Your task to perform on an android device: Go to calendar. Show me events next week Image 0: 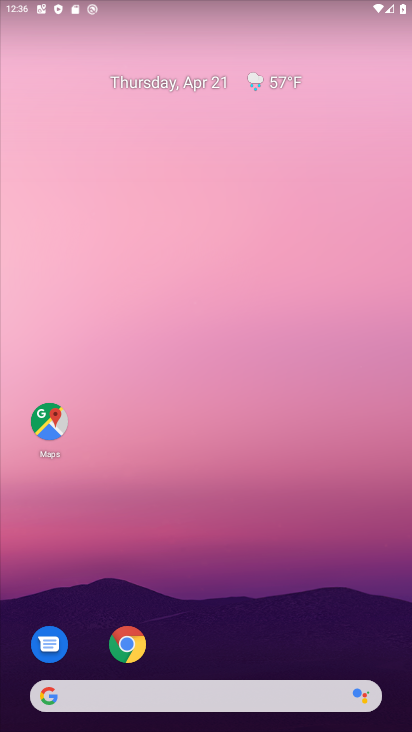
Step 0: drag from (197, 665) to (255, 3)
Your task to perform on an android device: Go to calendar. Show me events next week Image 1: 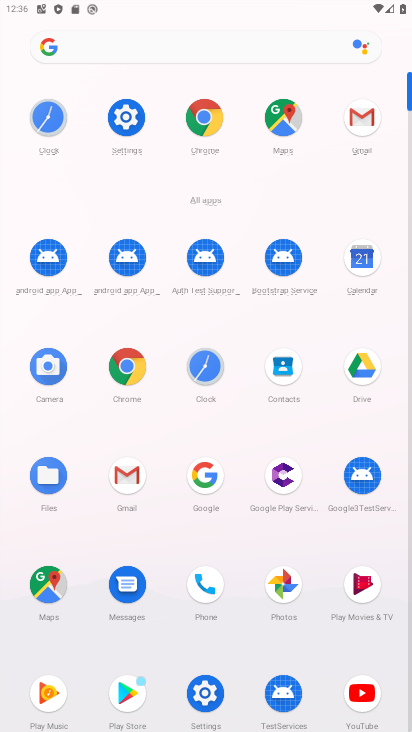
Step 1: click (358, 258)
Your task to perform on an android device: Go to calendar. Show me events next week Image 2: 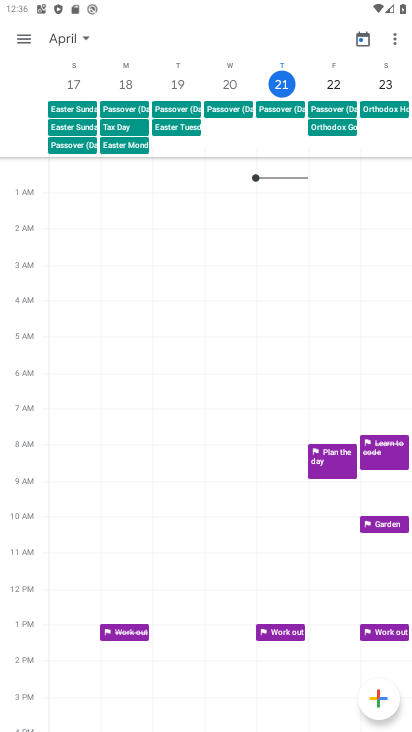
Step 2: task complete